Your task to perform on an android device: visit the assistant section in the google photos Image 0: 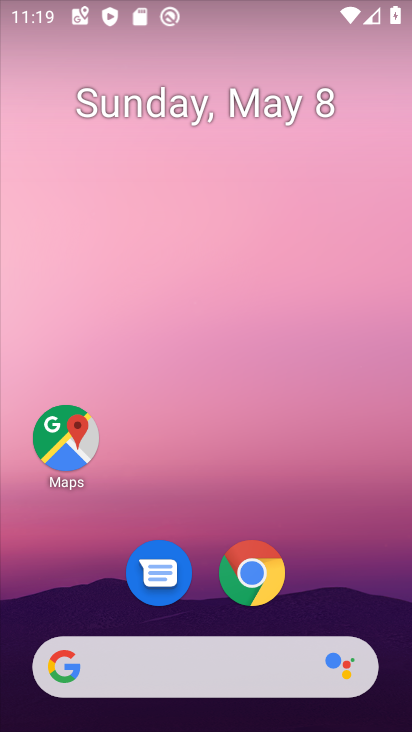
Step 0: drag from (330, 572) to (297, 28)
Your task to perform on an android device: visit the assistant section in the google photos Image 1: 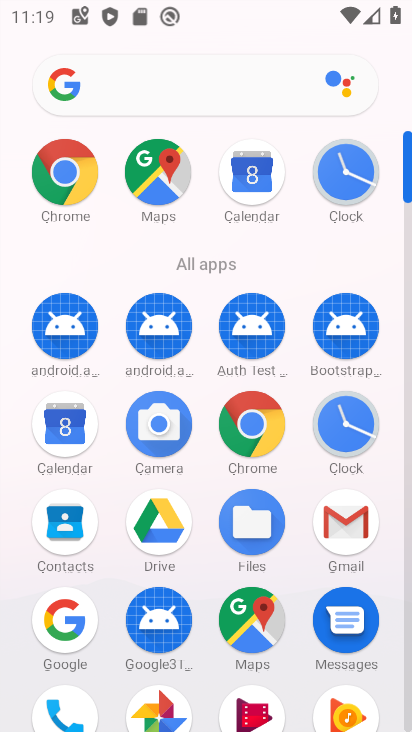
Step 1: drag from (2, 529) to (3, 281)
Your task to perform on an android device: visit the assistant section in the google photos Image 2: 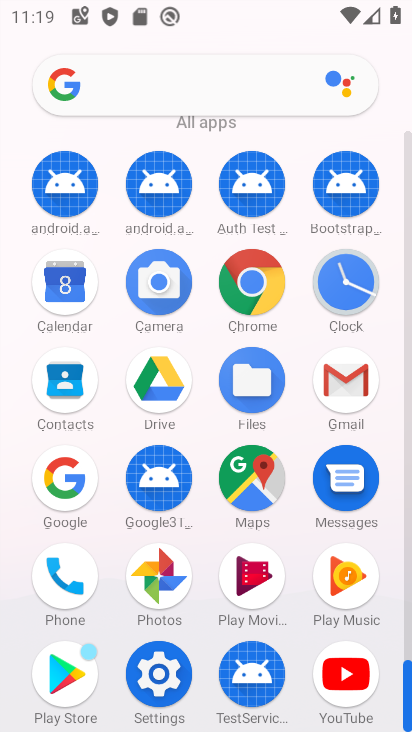
Step 2: click (157, 576)
Your task to perform on an android device: visit the assistant section in the google photos Image 3: 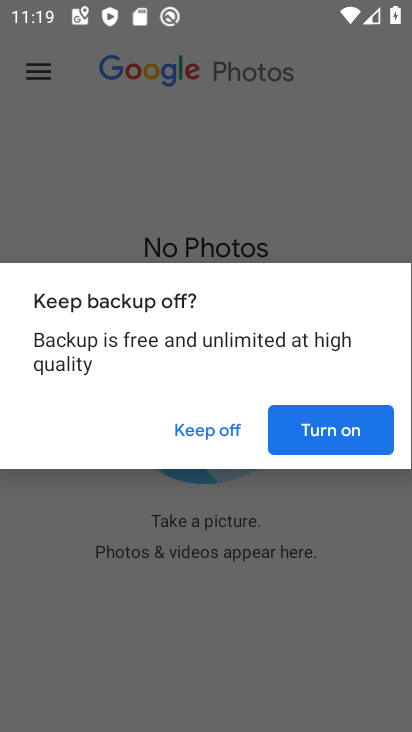
Step 3: click (303, 431)
Your task to perform on an android device: visit the assistant section in the google photos Image 4: 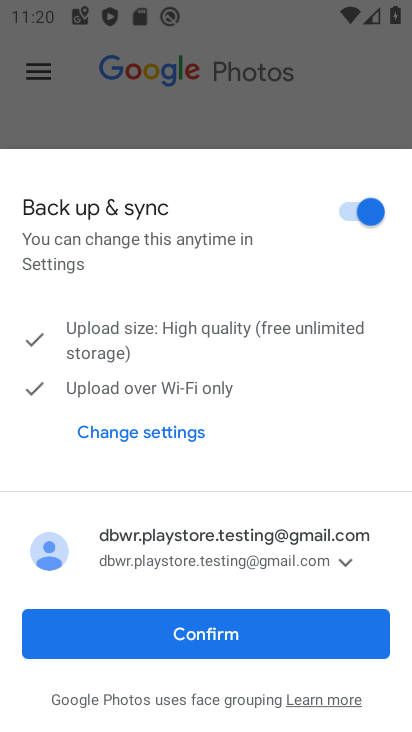
Step 4: click (193, 640)
Your task to perform on an android device: visit the assistant section in the google photos Image 5: 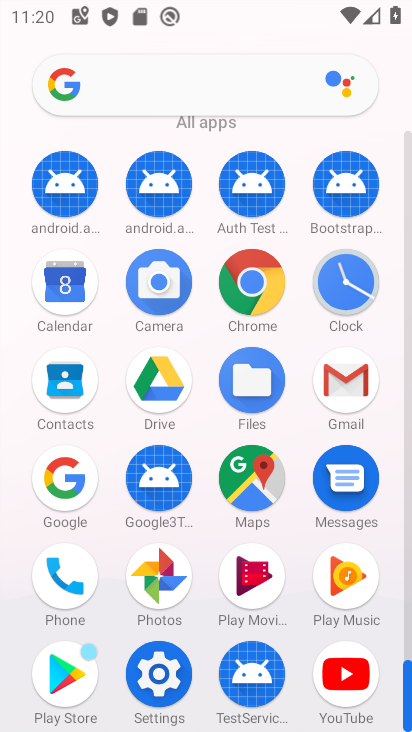
Step 5: click (153, 573)
Your task to perform on an android device: visit the assistant section in the google photos Image 6: 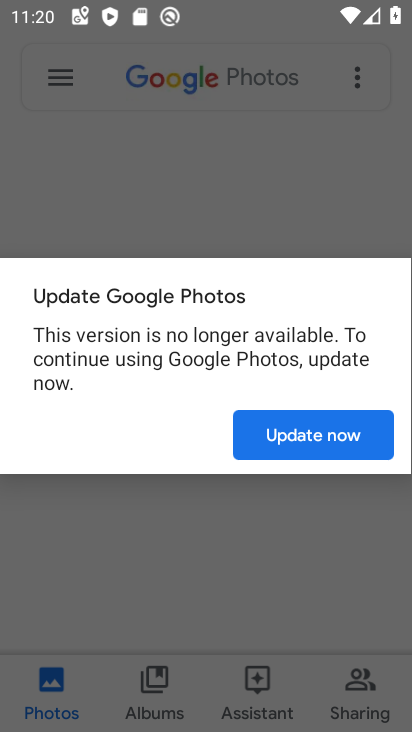
Step 6: click (292, 435)
Your task to perform on an android device: visit the assistant section in the google photos Image 7: 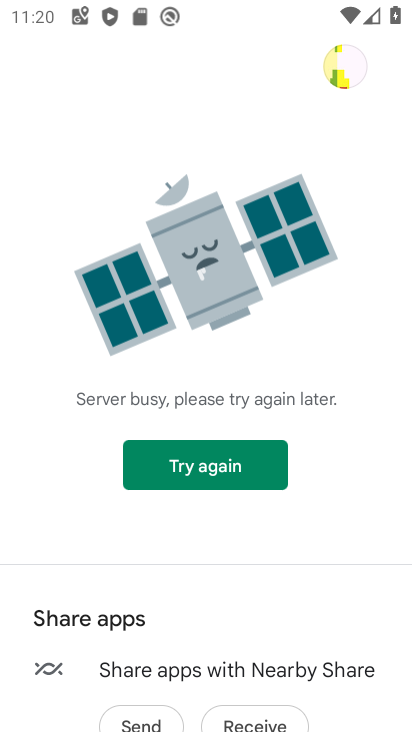
Step 7: click (215, 463)
Your task to perform on an android device: visit the assistant section in the google photos Image 8: 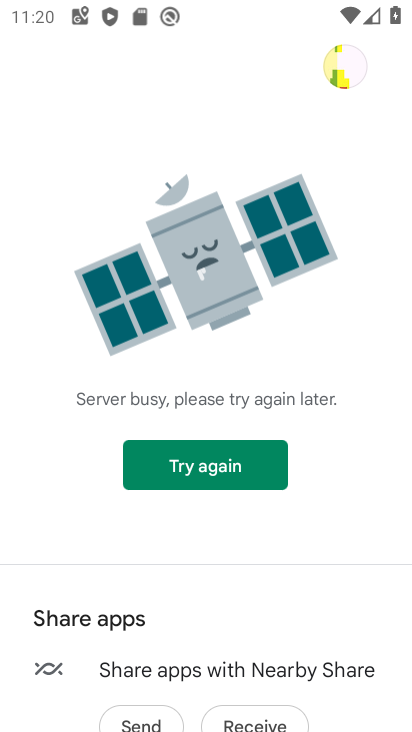
Step 8: task complete